Your task to perform on an android device: turn off wifi Image 0: 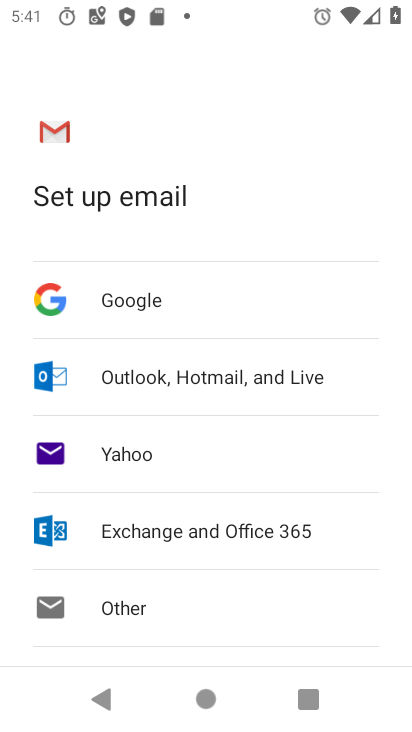
Step 0: drag from (224, 20) to (148, 427)
Your task to perform on an android device: turn off wifi Image 1: 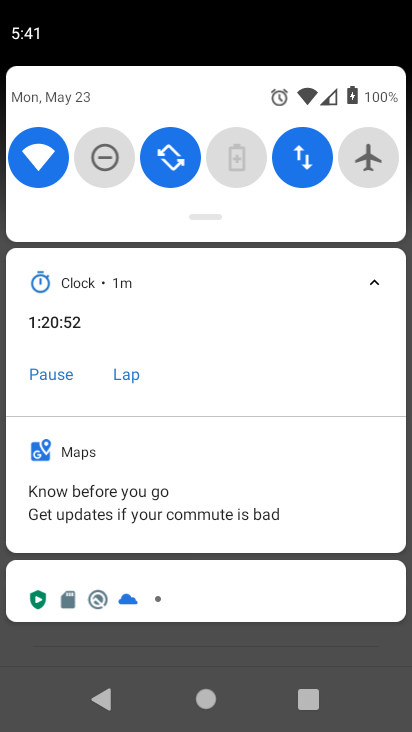
Step 1: click (40, 146)
Your task to perform on an android device: turn off wifi Image 2: 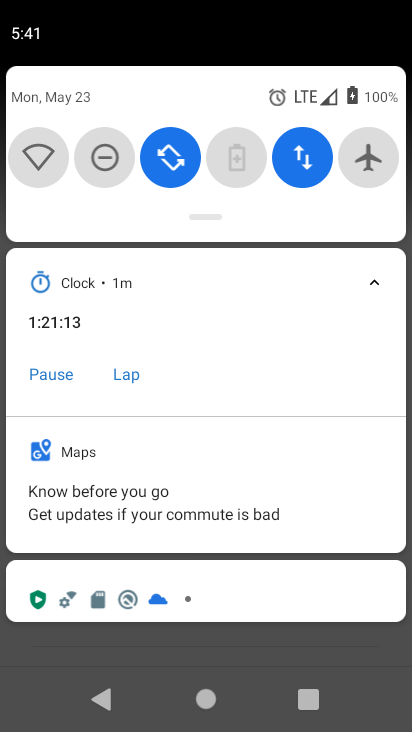
Step 2: task complete